Your task to perform on an android device: Add usb-c to usb-a to the cart on target.com, then select checkout. Image 0: 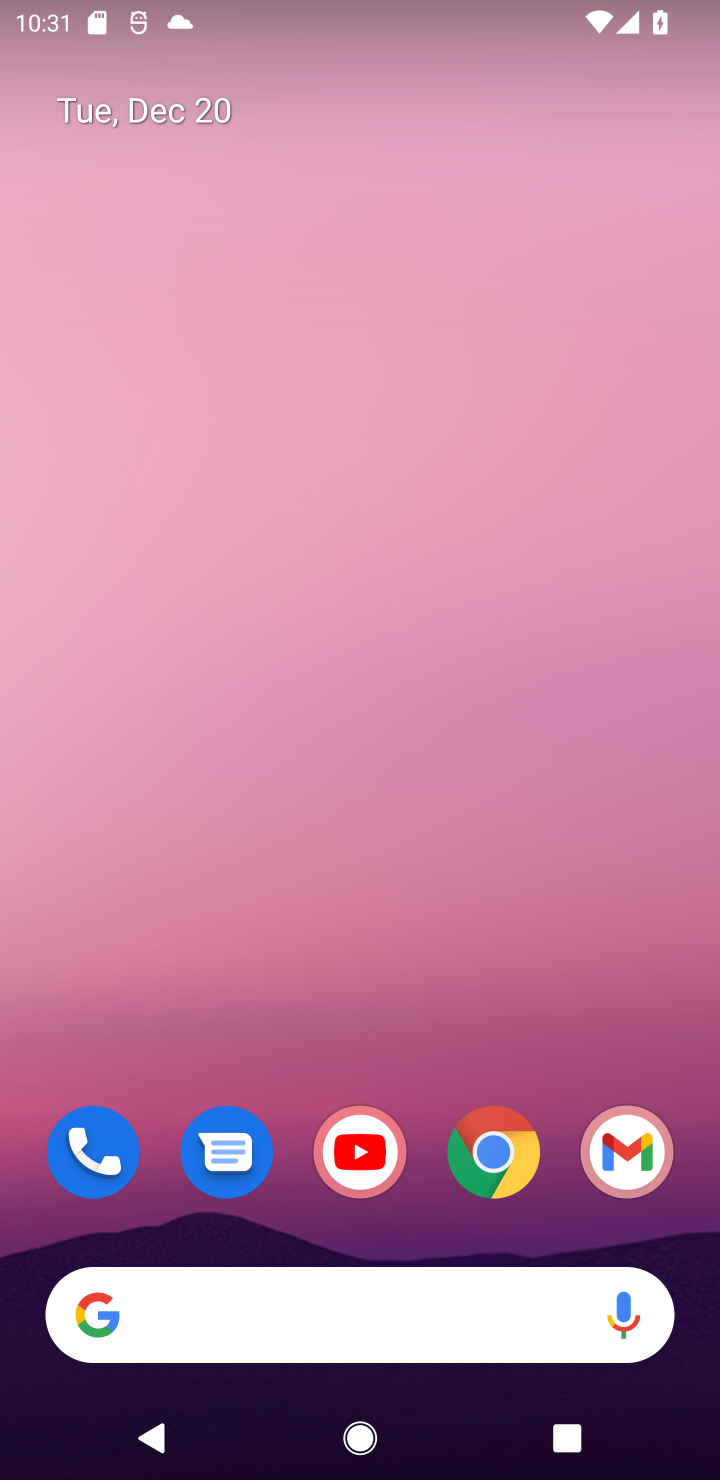
Step 0: click (502, 1167)
Your task to perform on an android device: Add usb-c to usb-a to the cart on target.com, then select checkout. Image 1: 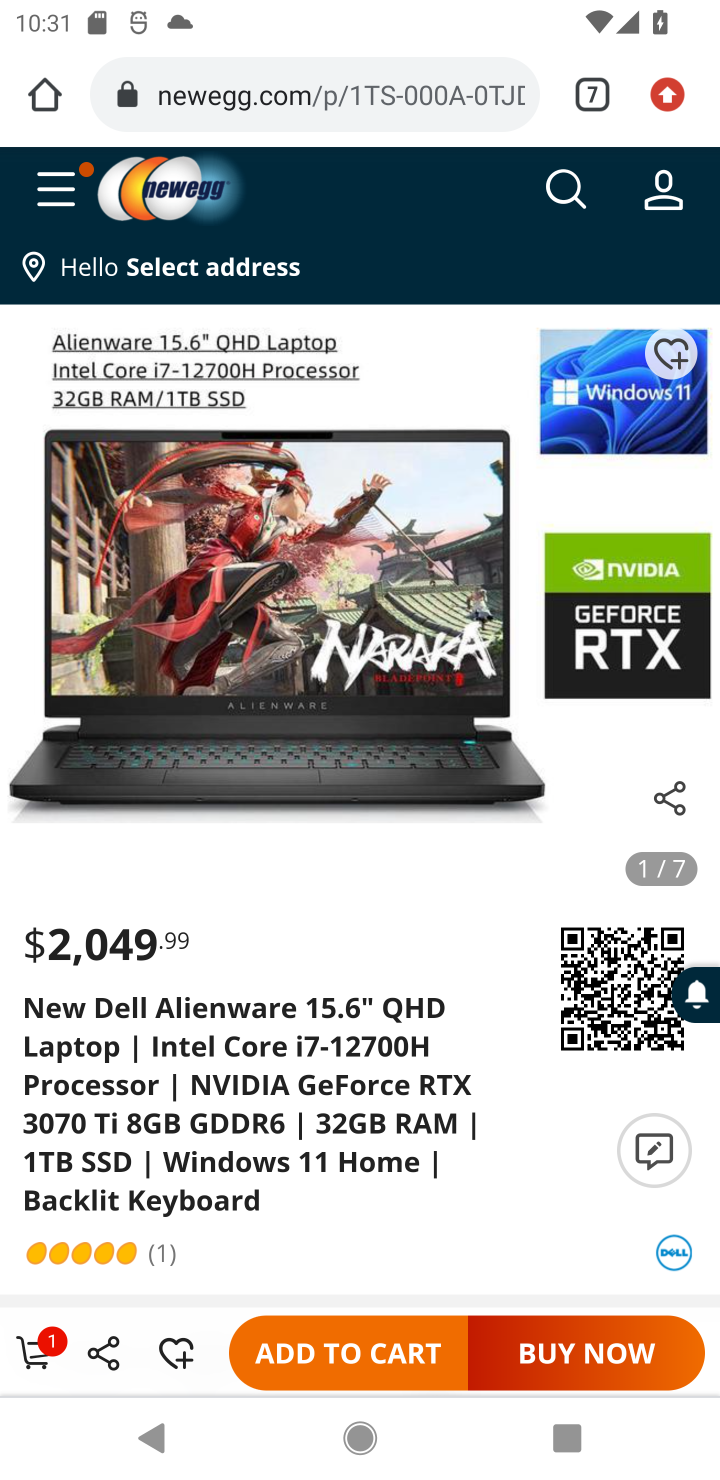
Step 1: click (603, 88)
Your task to perform on an android device: Add usb-c to usb-a to the cart on target.com, then select checkout. Image 2: 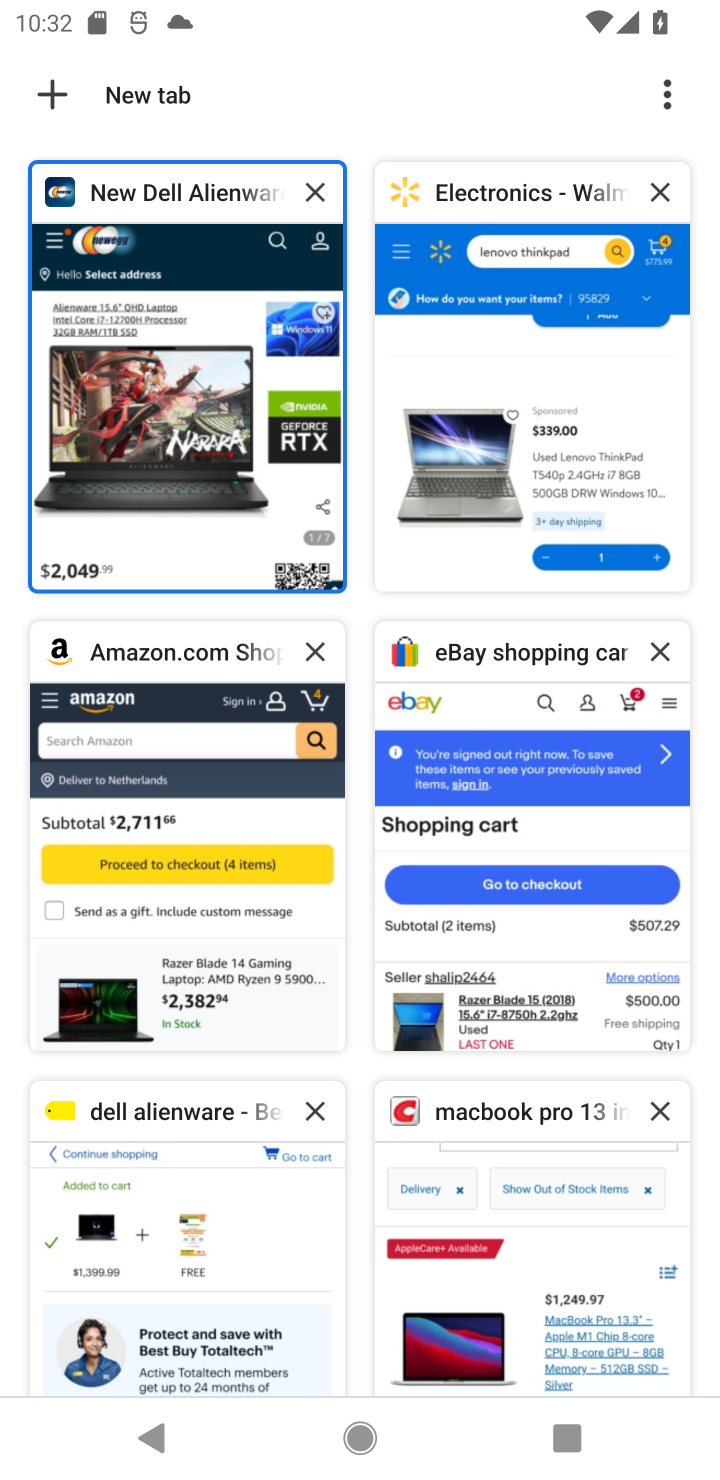
Step 2: drag from (433, 1248) to (574, 601)
Your task to perform on an android device: Add usb-c to usb-a to the cart on target.com, then select checkout. Image 3: 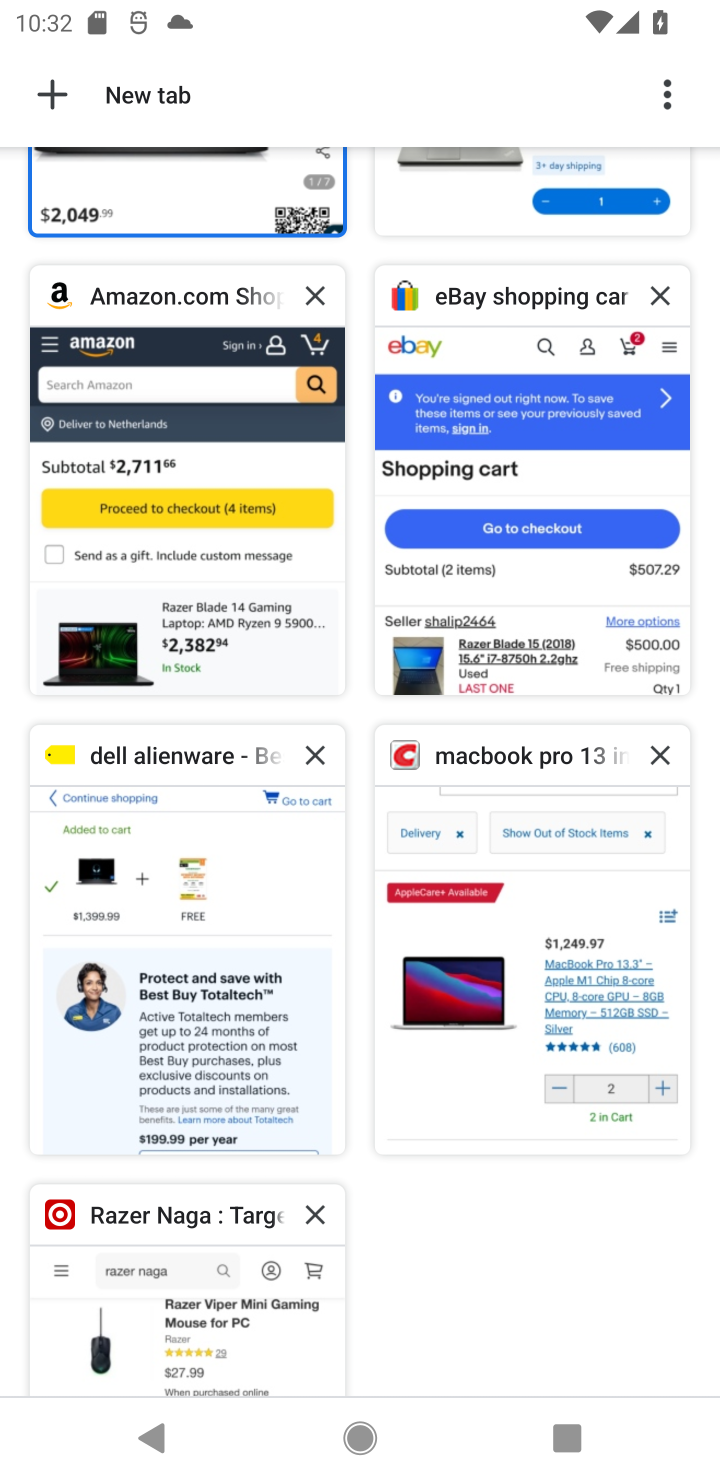
Step 3: click (155, 1283)
Your task to perform on an android device: Add usb-c to usb-a to the cart on target.com, then select checkout. Image 4: 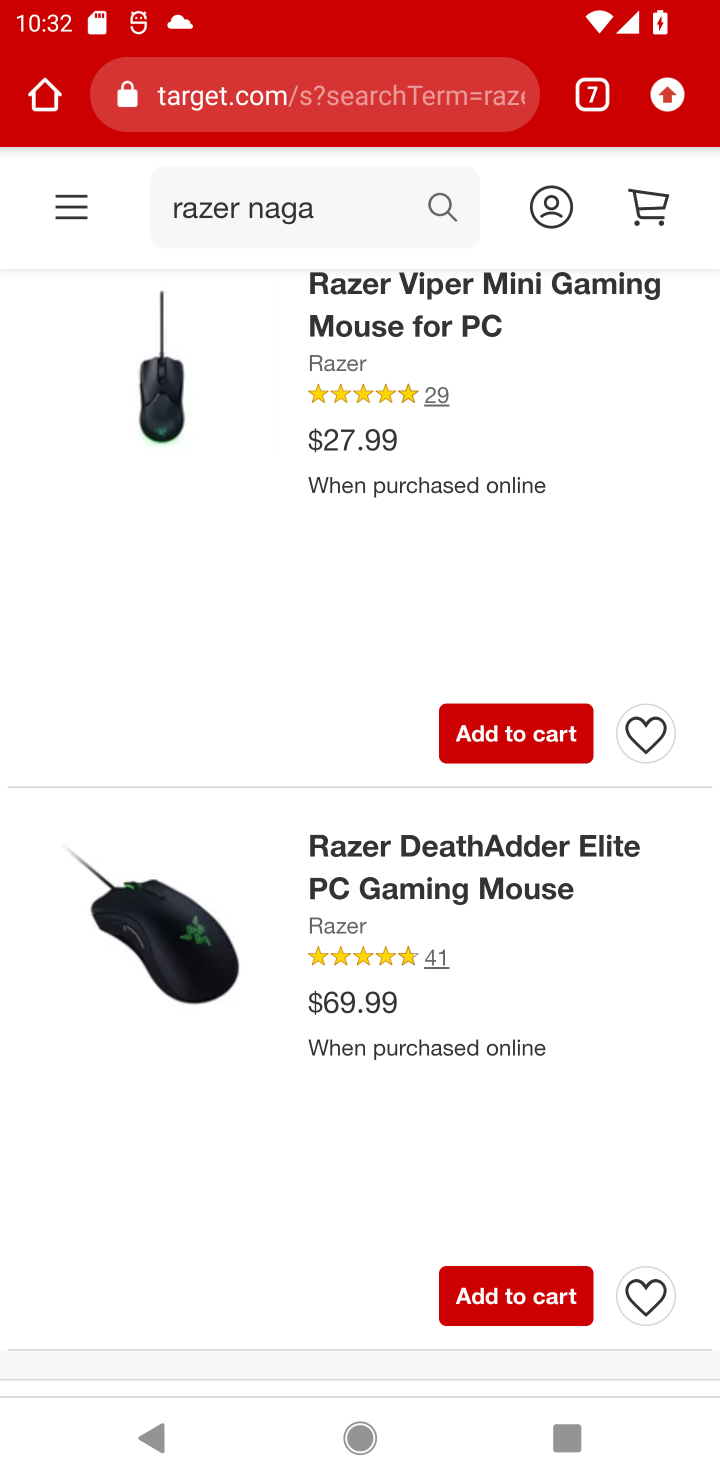
Step 4: click (320, 211)
Your task to perform on an android device: Add usb-c to usb-a to the cart on target.com, then select checkout. Image 5: 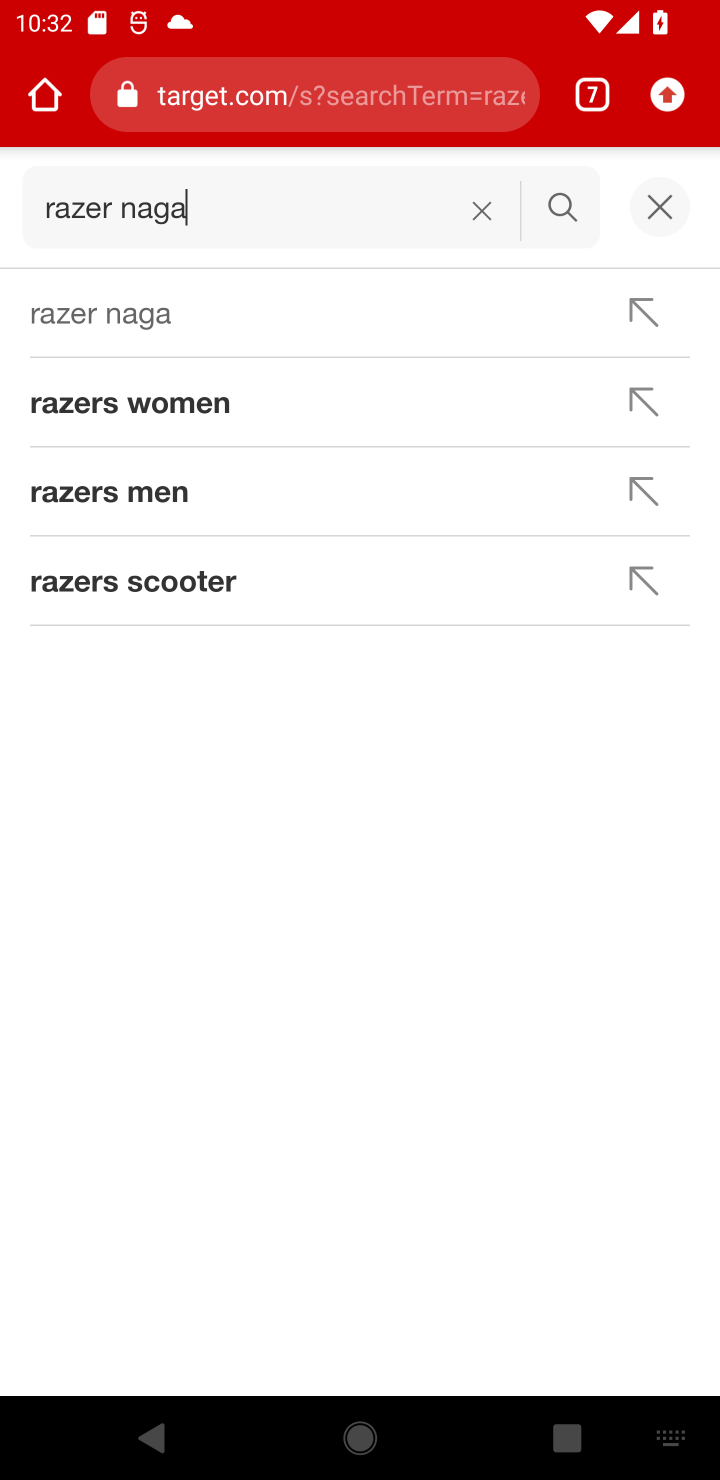
Step 5: click (481, 214)
Your task to perform on an android device: Add usb-c to usb-a to the cart on target.com, then select checkout. Image 6: 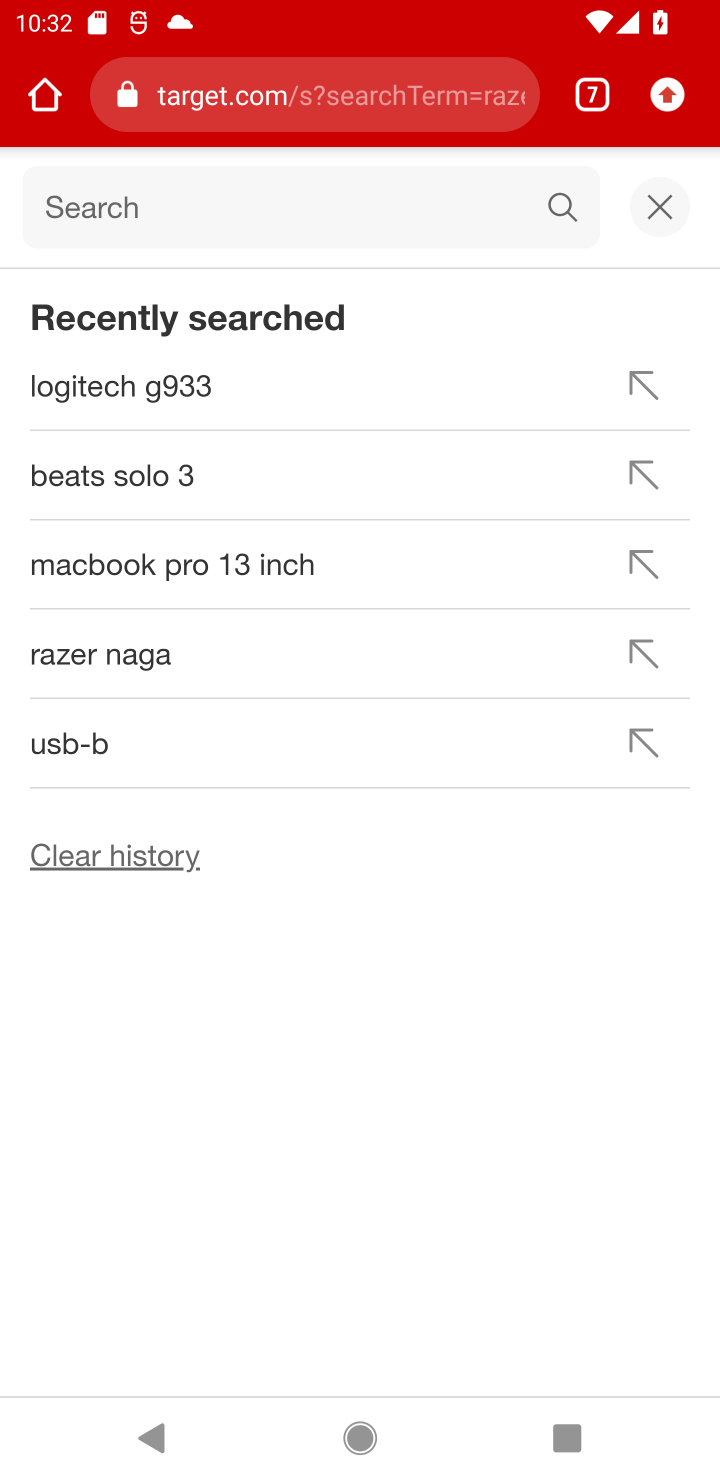
Step 6: type "usb-c to usb-a"
Your task to perform on an android device: Add usb-c to usb-a to the cart on target.com, then select checkout. Image 7: 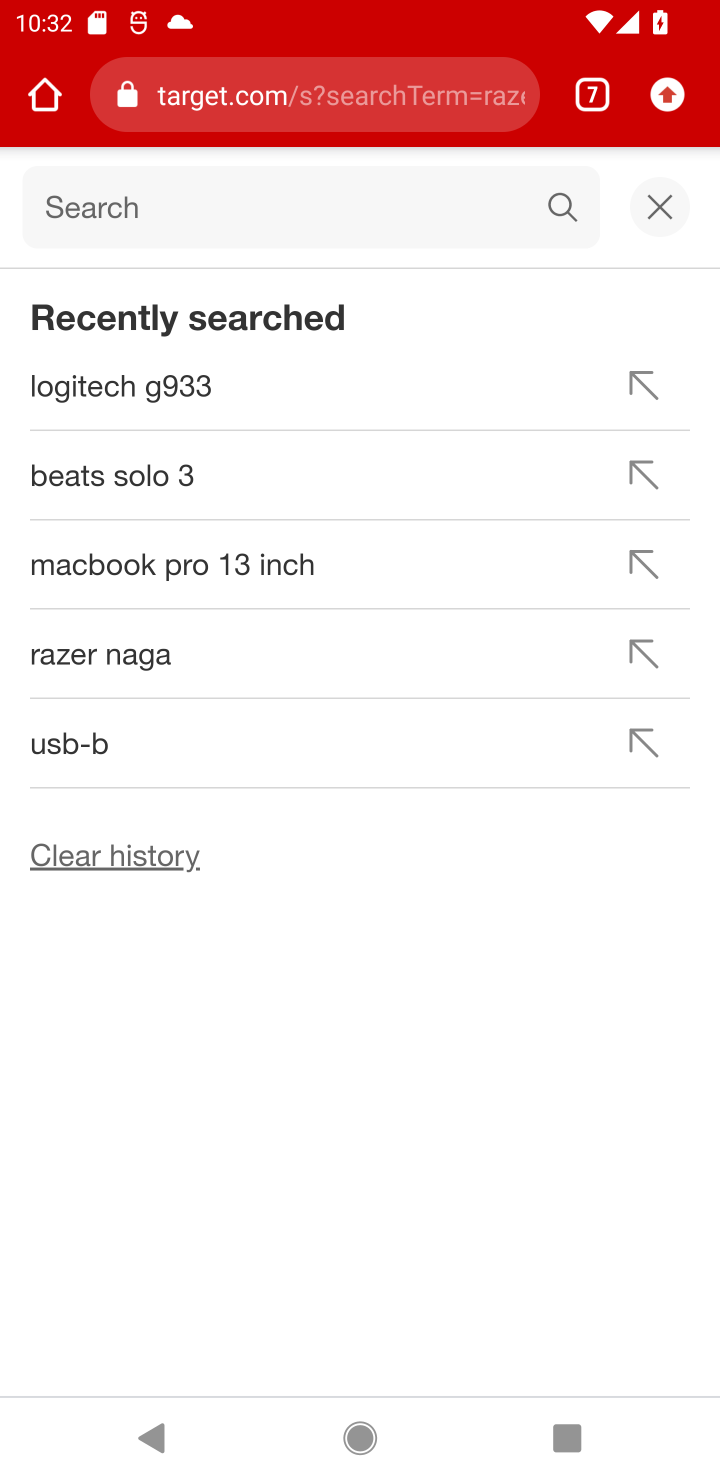
Step 7: click (417, 210)
Your task to perform on an android device: Add usb-c to usb-a to the cart on target.com, then select checkout. Image 8: 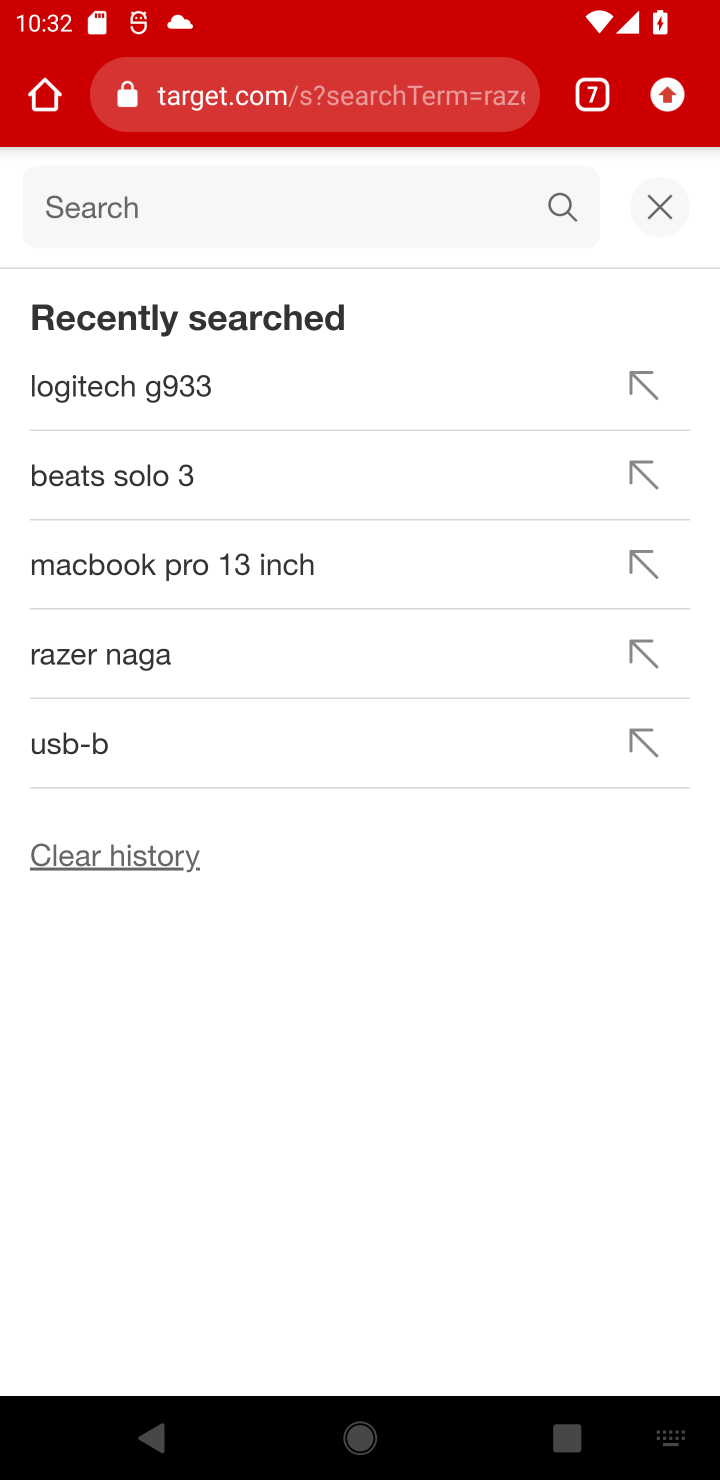
Step 8: type "usb-c to usb-a"
Your task to perform on an android device: Add usb-c to usb-a to the cart on target.com, then select checkout. Image 9: 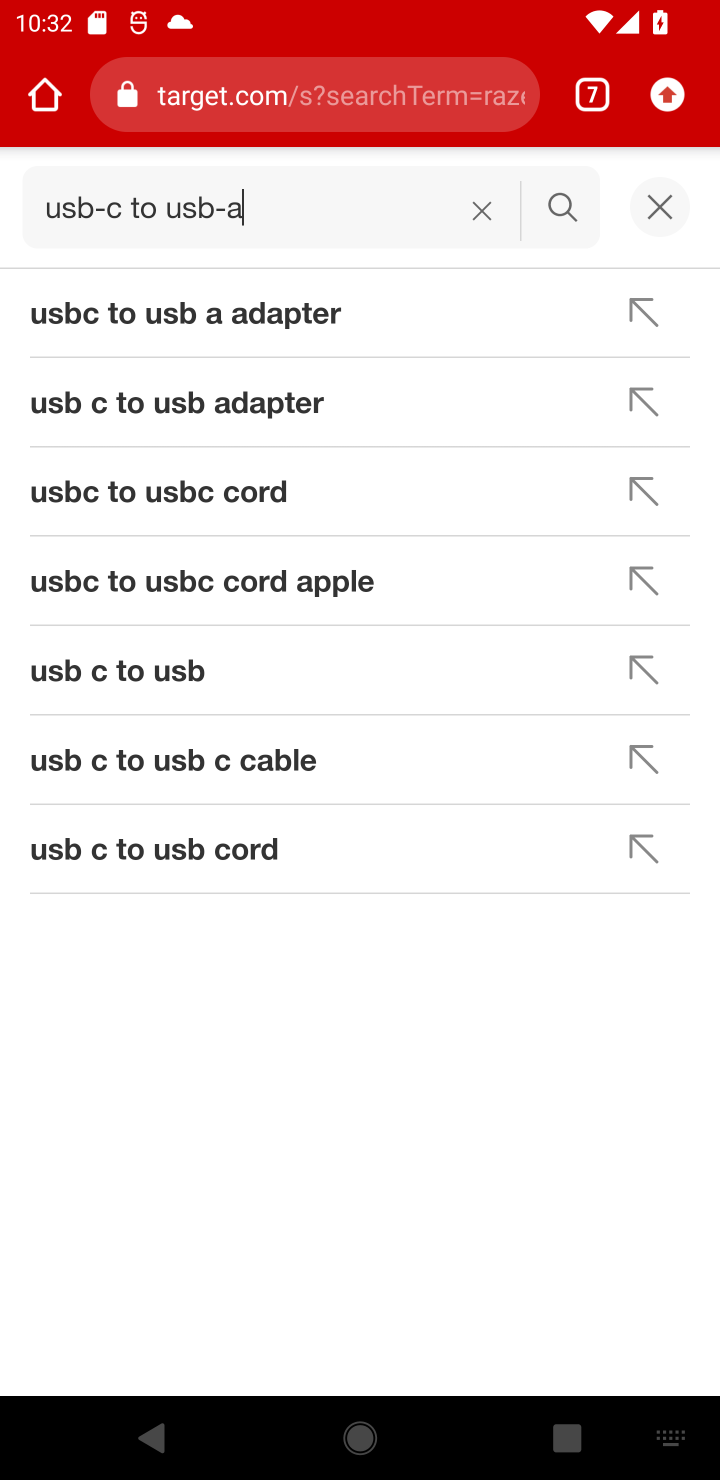
Step 9: click (570, 201)
Your task to perform on an android device: Add usb-c to usb-a to the cart on target.com, then select checkout. Image 10: 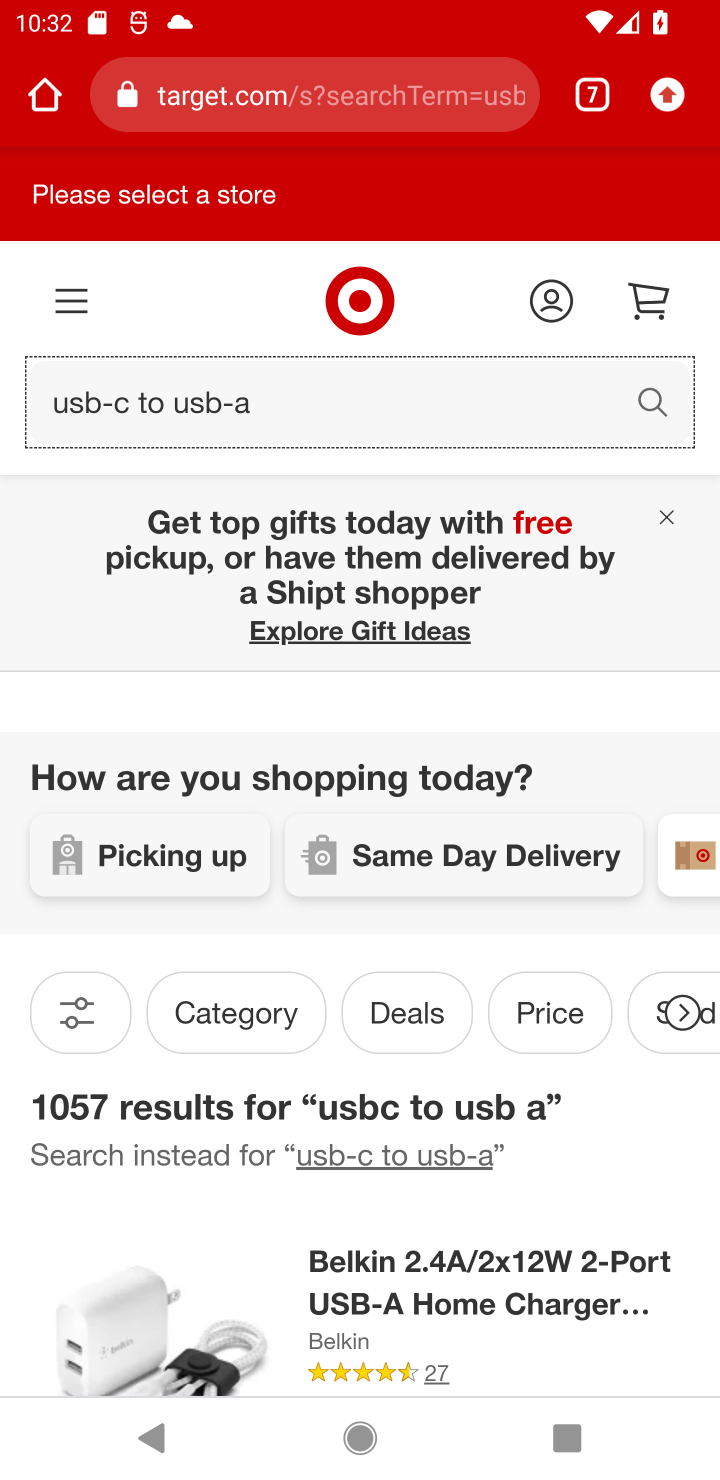
Step 10: drag from (511, 1344) to (590, 435)
Your task to perform on an android device: Add usb-c to usb-a to the cart on target.com, then select checkout. Image 11: 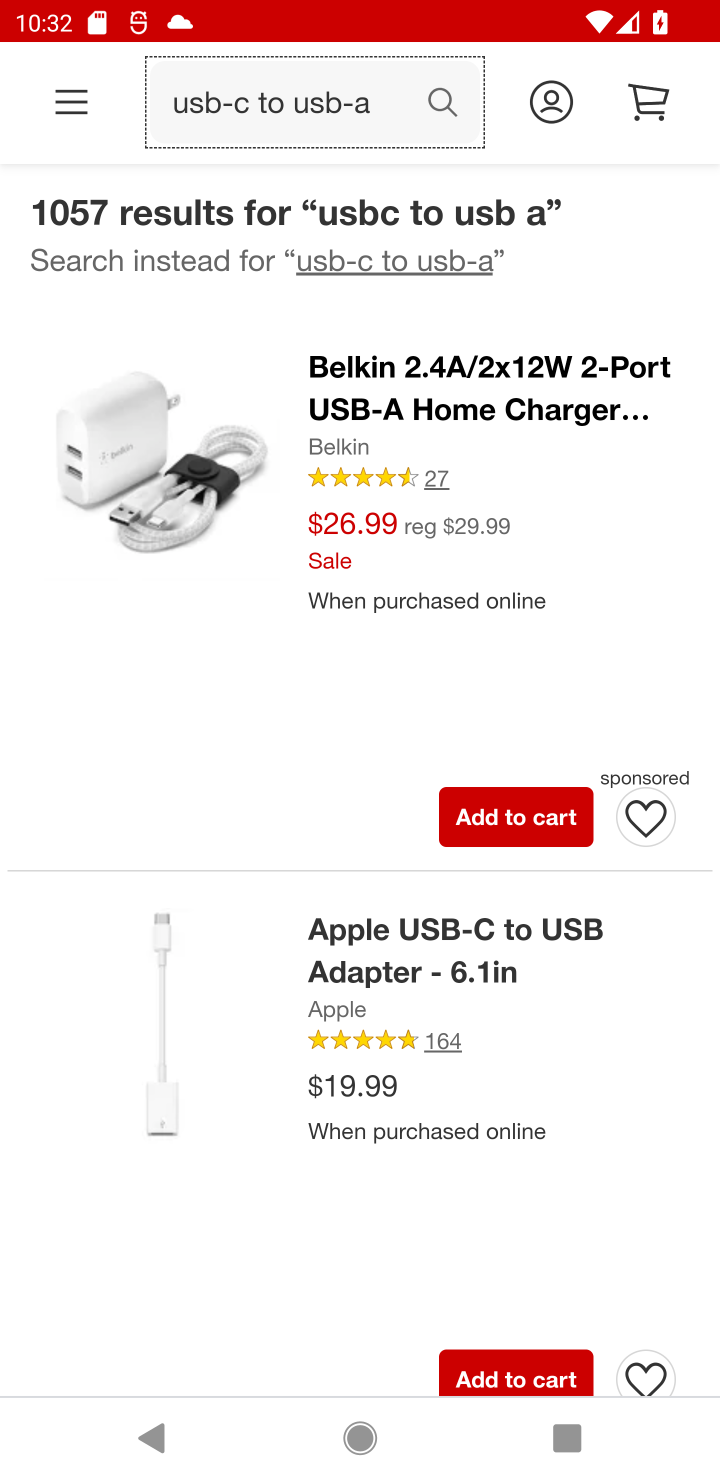
Step 11: drag from (565, 1072) to (580, 602)
Your task to perform on an android device: Add usb-c to usb-a to the cart on target.com, then select checkout. Image 12: 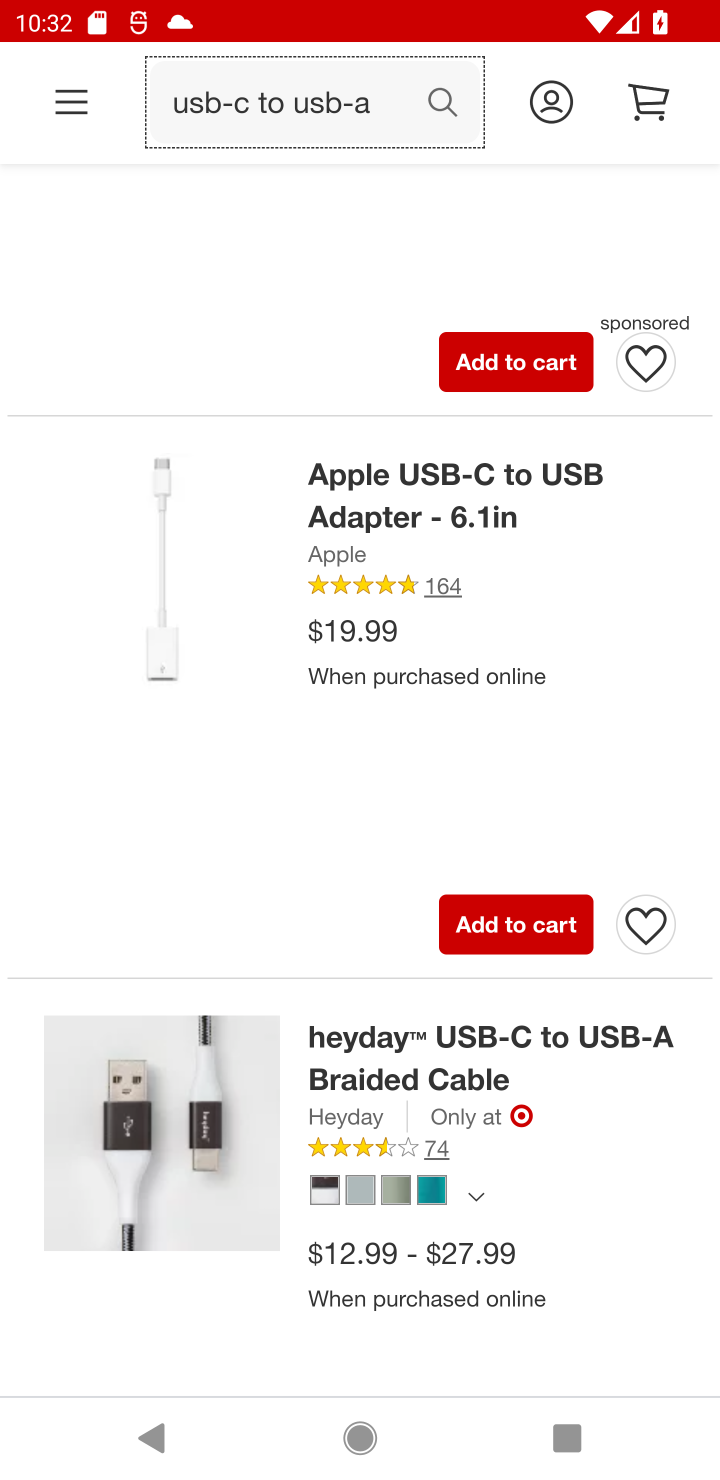
Step 12: drag from (594, 1209) to (642, 643)
Your task to perform on an android device: Add usb-c to usb-a to the cart on target.com, then select checkout. Image 13: 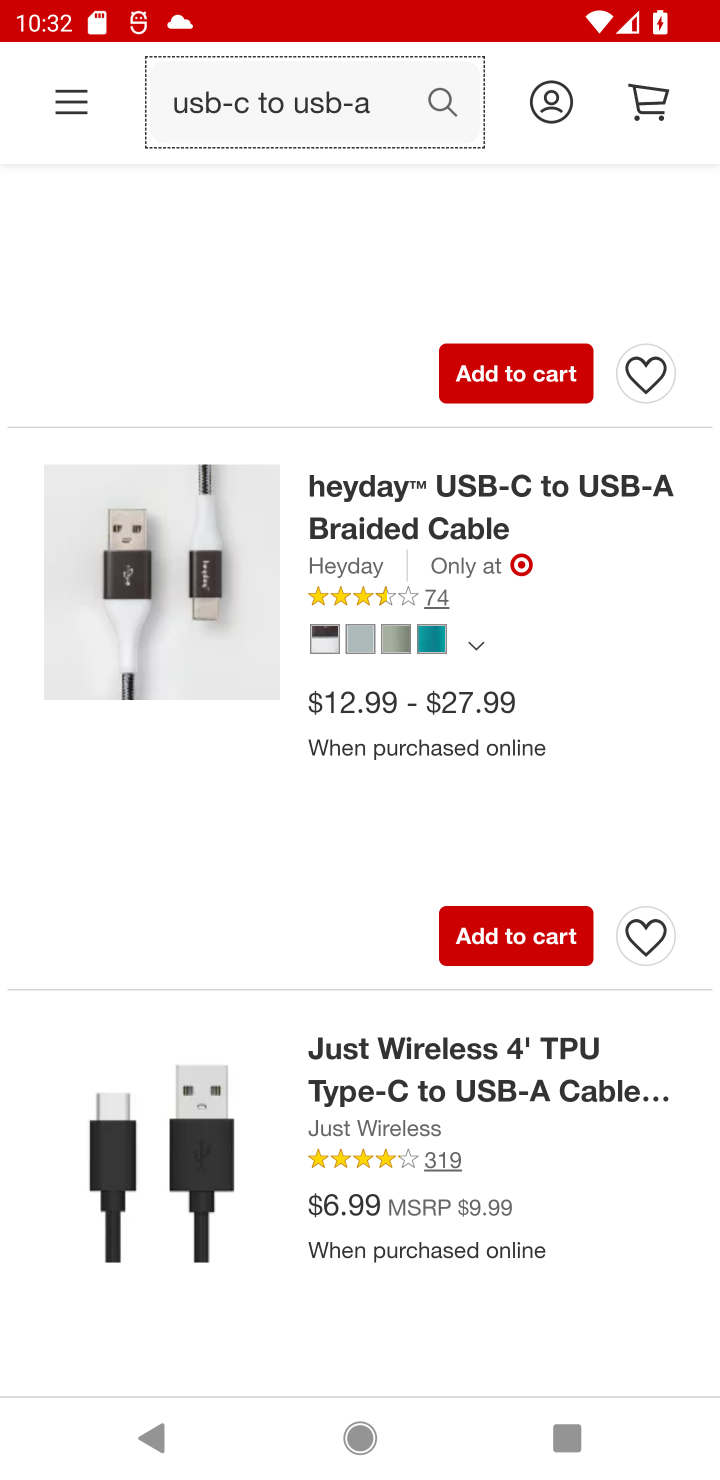
Step 13: click (501, 936)
Your task to perform on an android device: Add usb-c to usb-a to the cart on target.com, then select checkout. Image 14: 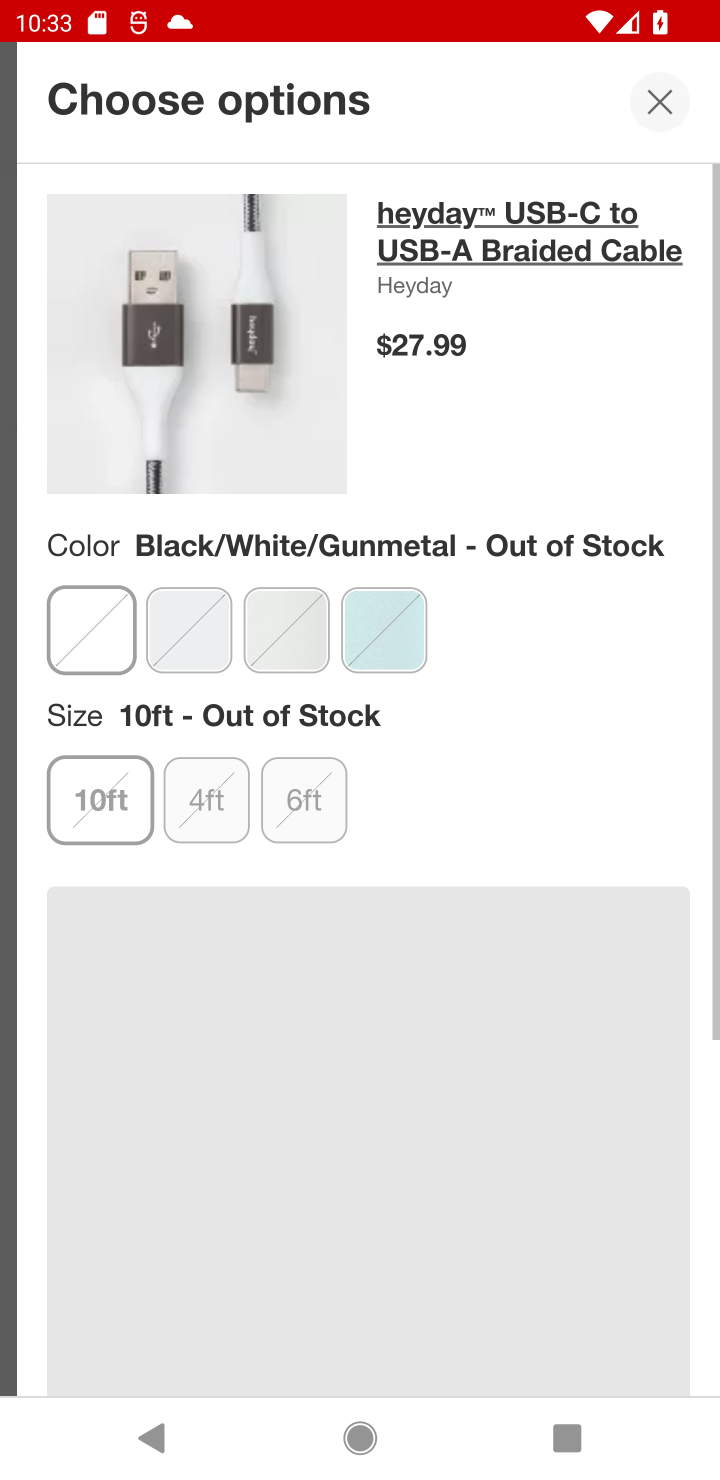
Step 14: click (661, 102)
Your task to perform on an android device: Add usb-c to usb-a to the cart on target.com, then select checkout. Image 15: 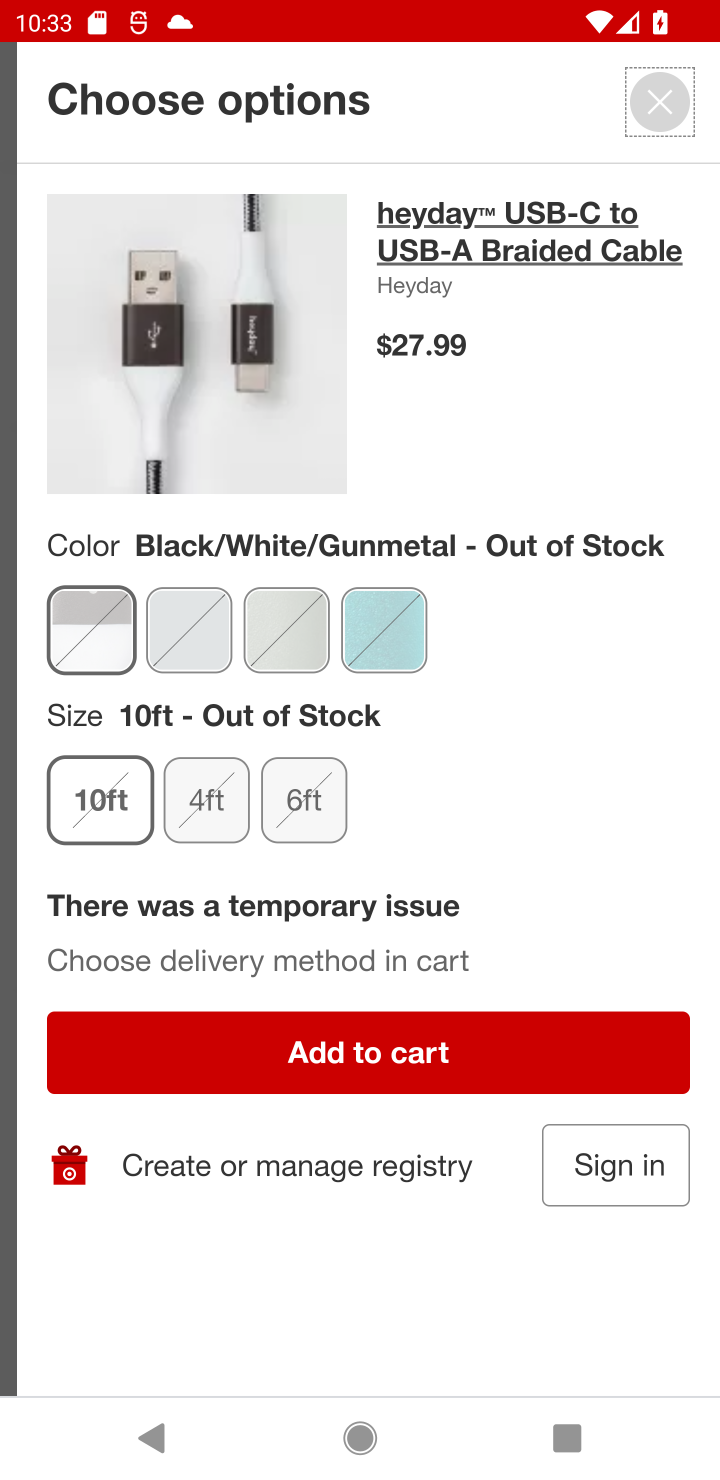
Step 15: click (337, 1074)
Your task to perform on an android device: Add usb-c to usb-a to the cart on target.com, then select checkout. Image 16: 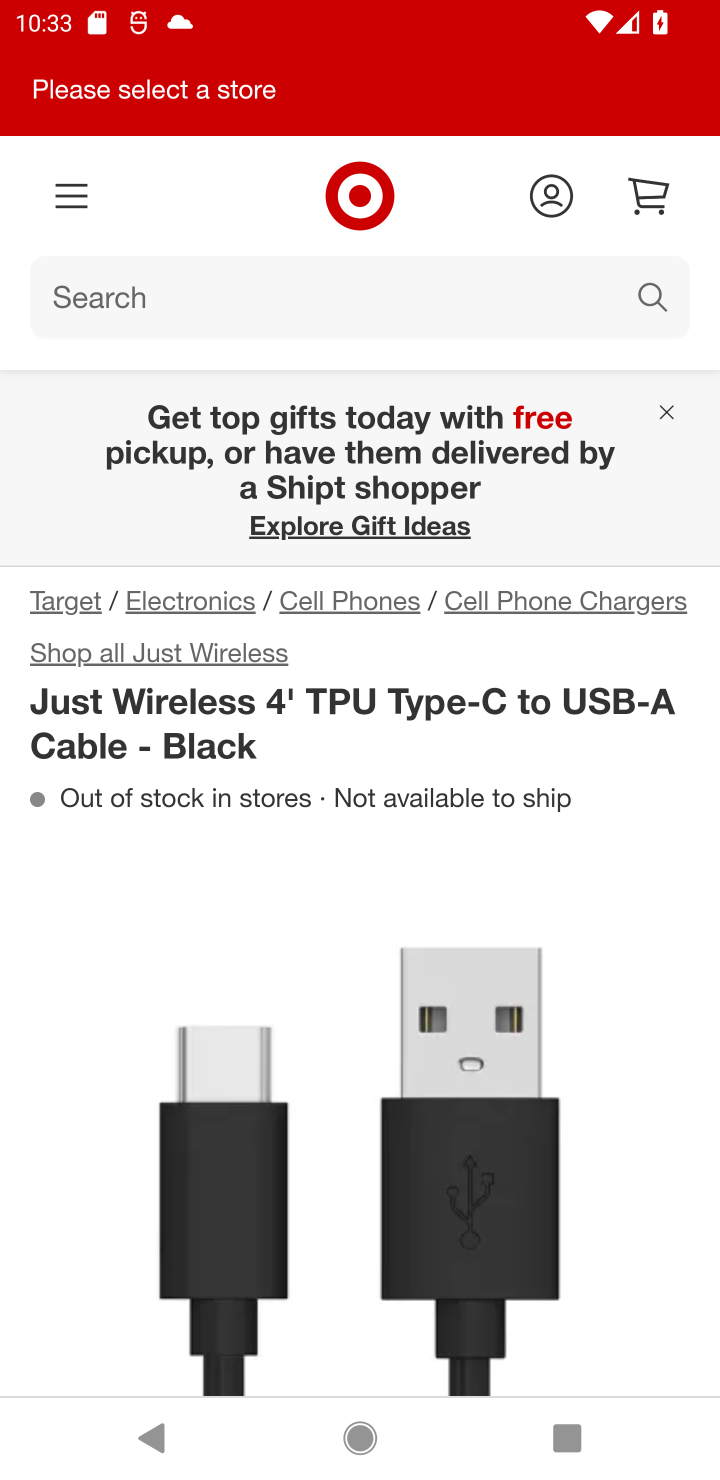
Step 16: drag from (256, 1295) to (511, 427)
Your task to perform on an android device: Add usb-c to usb-a to the cart on target.com, then select checkout. Image 17: 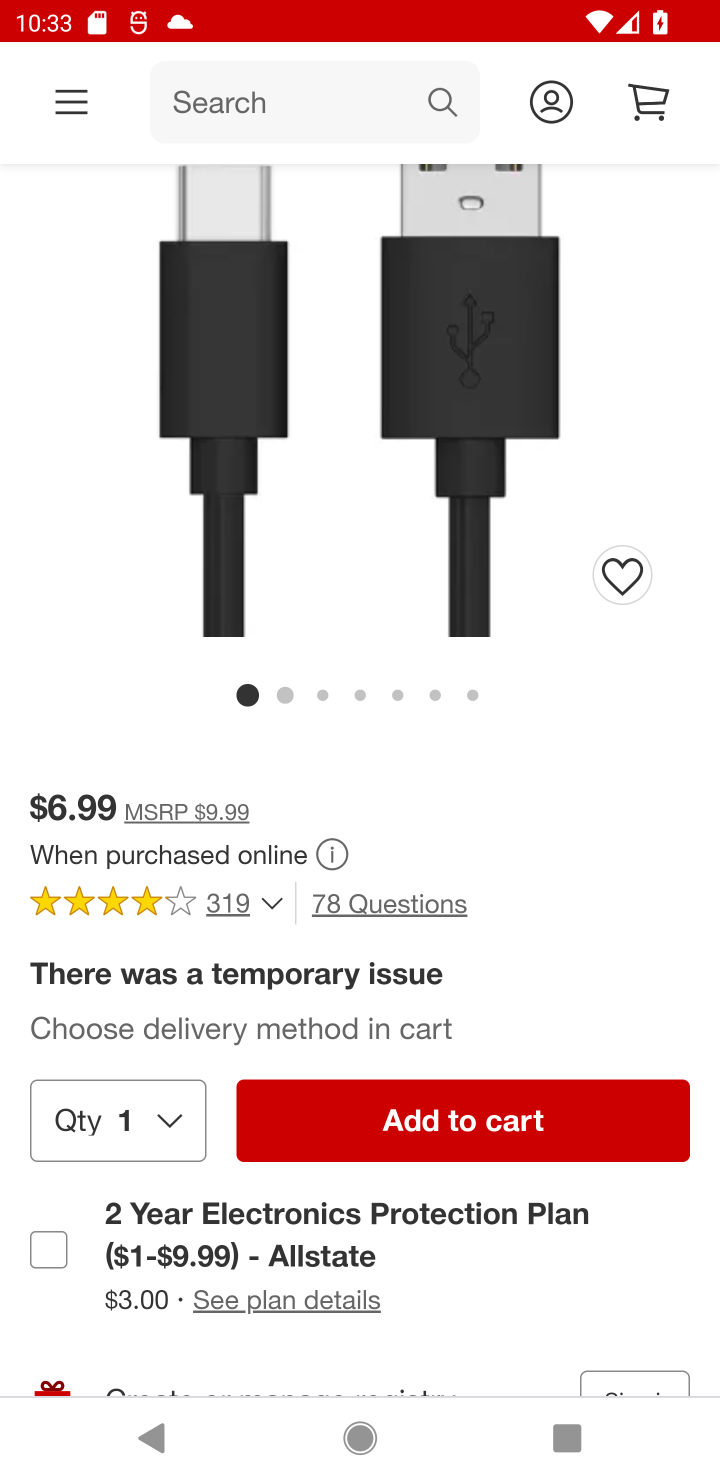
Step 17: click (508, 1115)
Your task to perform on an android device: Add usb-c to usb-a to the cart on target.com, then select checkout. Image 18: 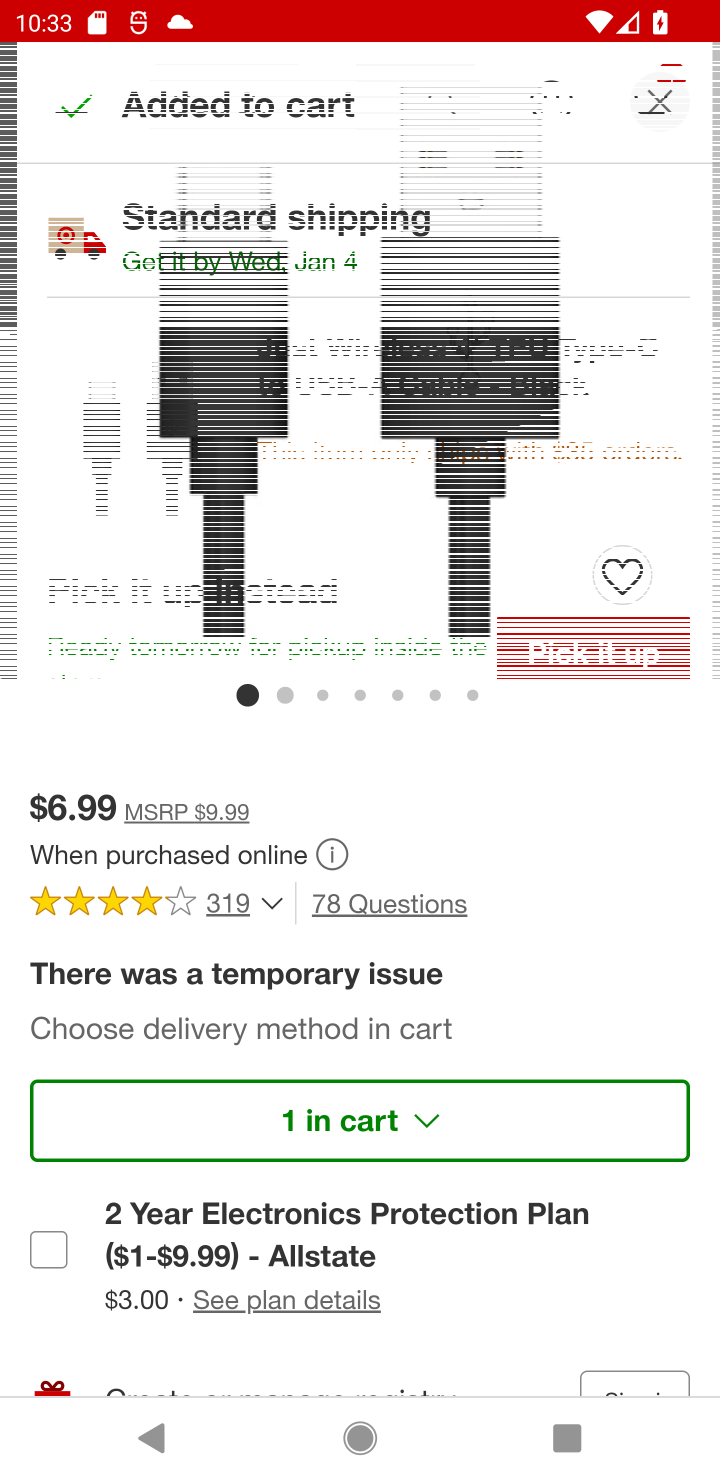
Step 18: task complete